Your task to perform on an android device: turn on showing notifications on the lock screen Image 0: 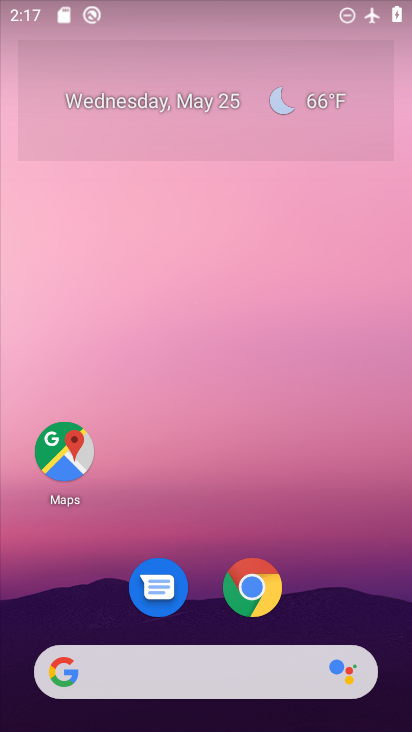
Step 0: drag from (338, 528) to (360, 131)
Your task to perform on an android device: turn on showing notifications on the lock screen Image 1: 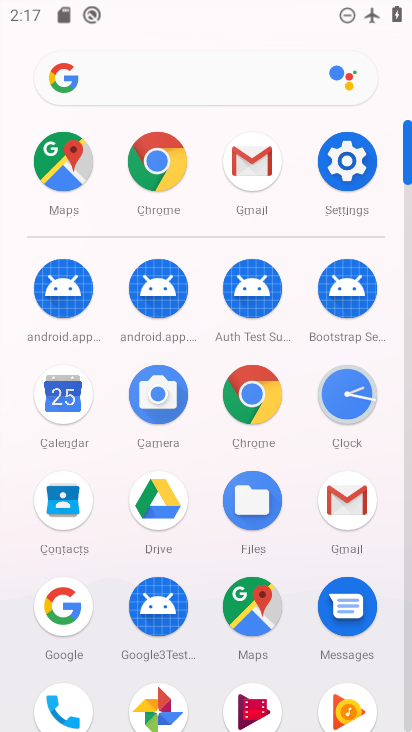
Step 1: click (359, 178)
Your task to perform on an android device: turn on showing notifications on the lock screen Image 2: 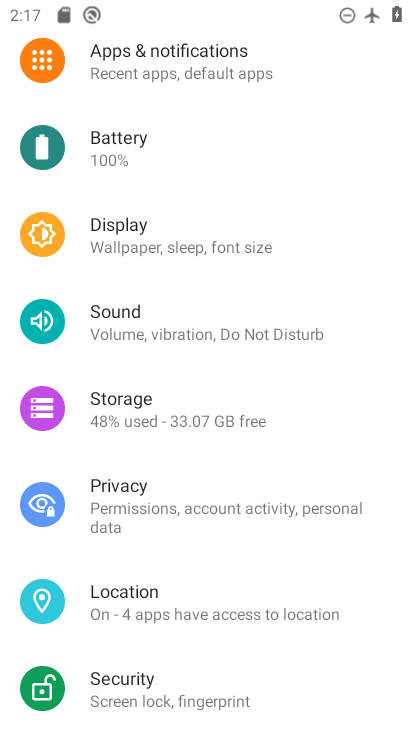
Step 2: drag from (361, 587) to (357, 454)
Your task to perform on an android device: turn on showing notifications on the lock screen Image 3: 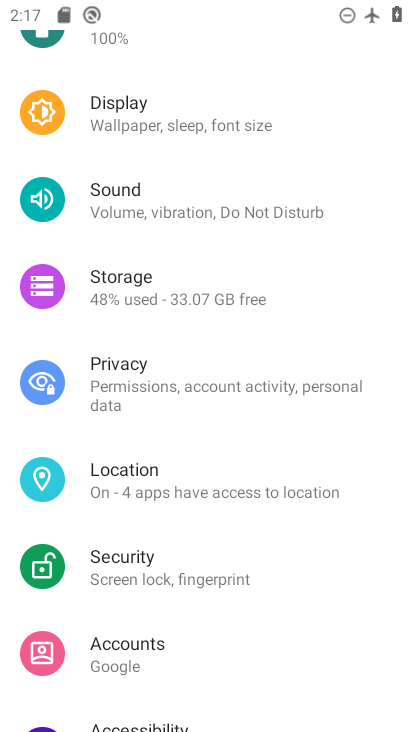
Step 3: drag from (352, 628) to (353, 432)
Your task to perform on an android device: turn on showing notifications on the lock screen Image 4: 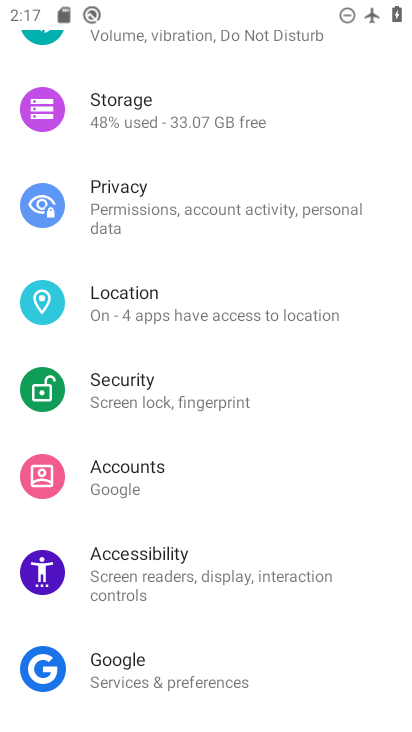
Step 4: drag from (337, 553) to (344, 400)
Your task to perform on an android device: turn on showing notifications on the lock screen Image 5: 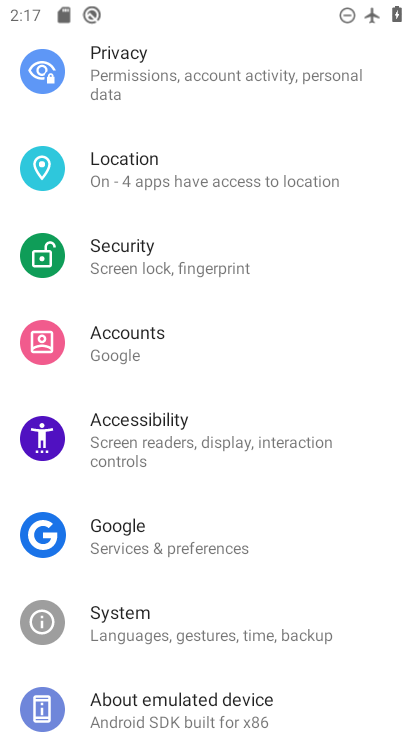
Step 5: drag from (340, 626) to (344, 483)
Your task to perform on an android device: turn on showing notifications on the lock screen Image 6: 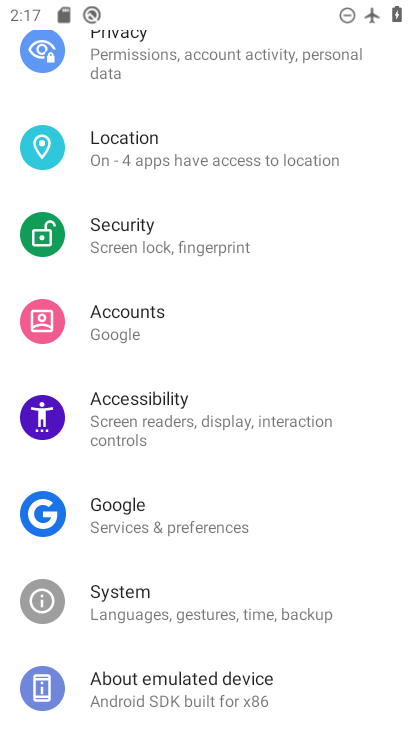
Step 6: drag from (345, 284) to (346, 430)
Your task to perform on an android device: turn on showing notifications on the lock screen Image 7: 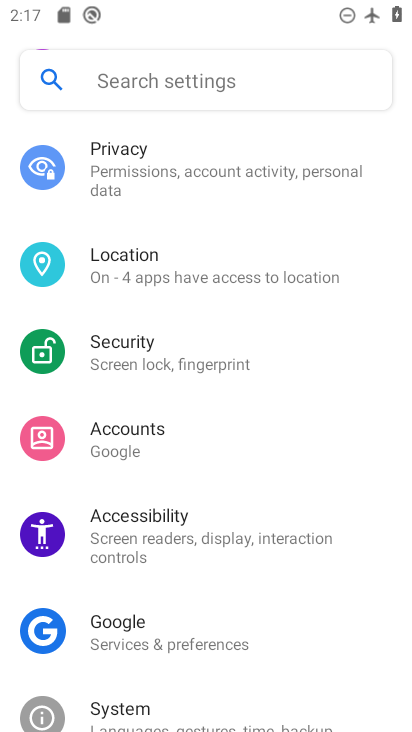
Step 7: drag from (348, 267) to (348, 383)
Your task to perform on an android device: turn on showing notifications on the lock screen Image 8: 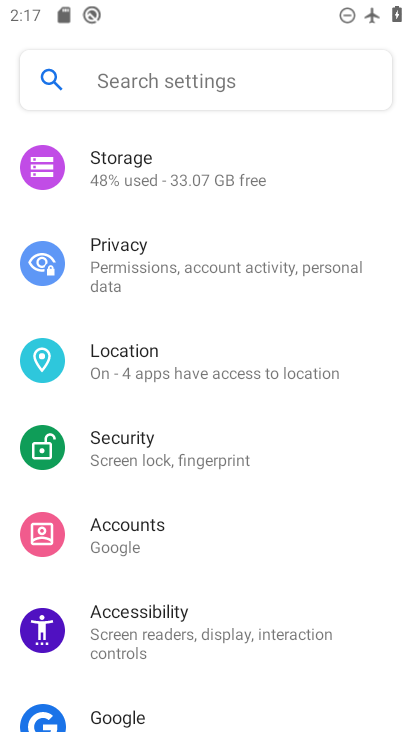
Step 8: drag from (347, 214) to (350, 349)
Your task to perform on an android device: turn on showing notifications on the lock screen Image 9: 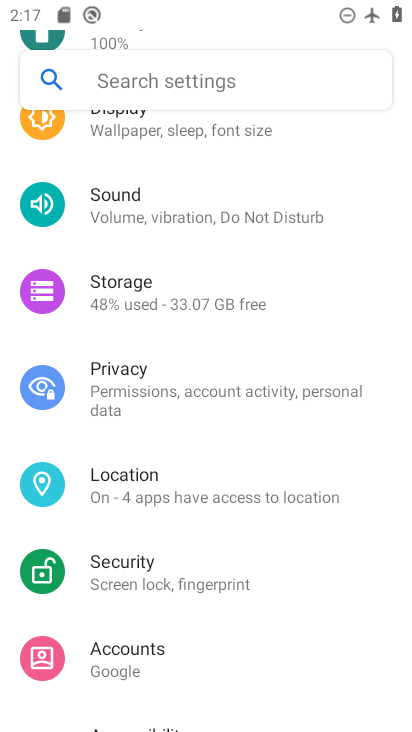
Step 9: drag from (360, 233) to (361, 311)
Your task to perform on an android device: turn on showing notifications on the lock screen Image 10: 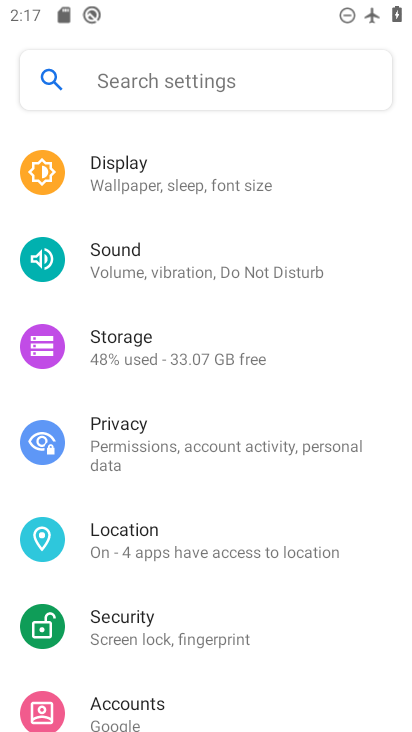
Step 10: drag from (355, 234) to (352, 339)
Your task to perform on an android device: turn on showing notifications on the lock screen Image 11: 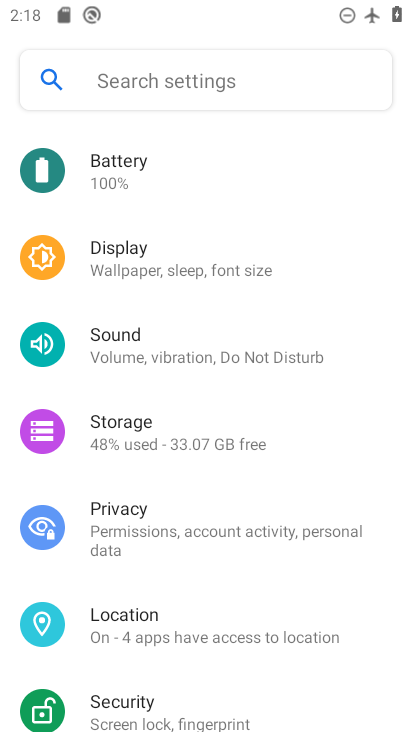
Step 11: drag from (348, 280) to (353, 430)
Your task to perform on an android device: turn on showing notifications on the lock screen Image 12: 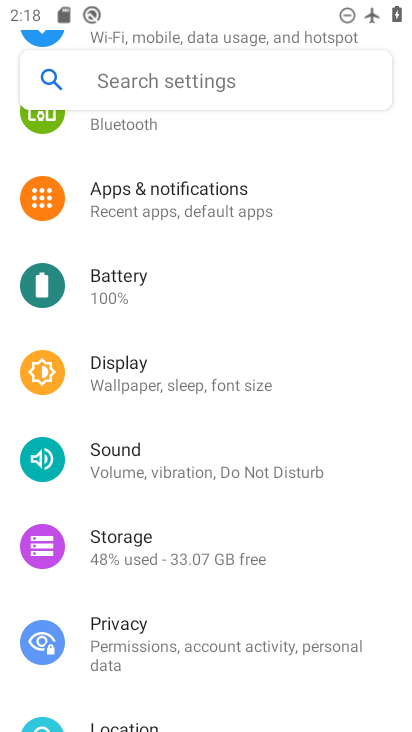
Step 12: click (257, 207)
Your task to perform on an android device: turn on showing notifications on the lock screen Image 13: 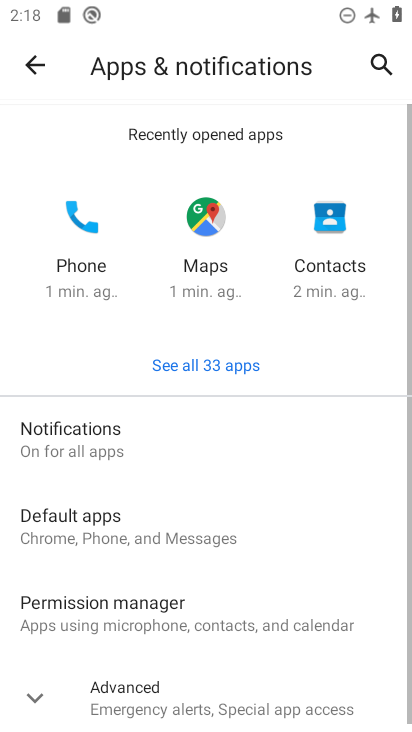
Step 13: drag from (322, 533) to (320, 392)
Your task to perform on an android device: turn on showing notifications on the lock screen Image 14: 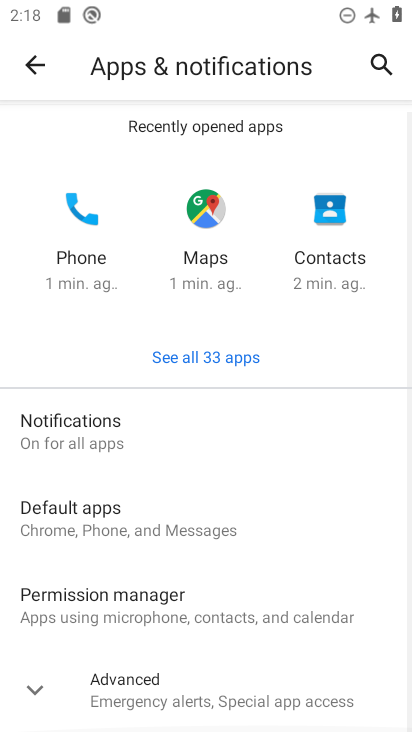
Step 14: click (100, 442)
Your task to perform on an android device: turn on showing notifications on the lock screen Image 15: 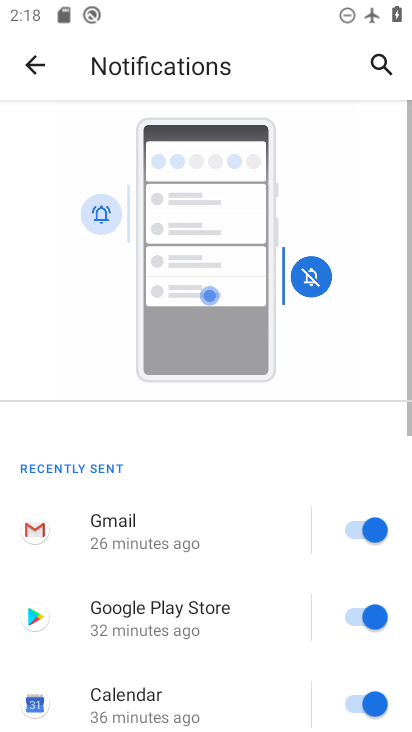
Step 15: drag from (228, 512) to (253, 375)
Your task to perform on an android device: turn on showing notifications on the lock screen Image 16: 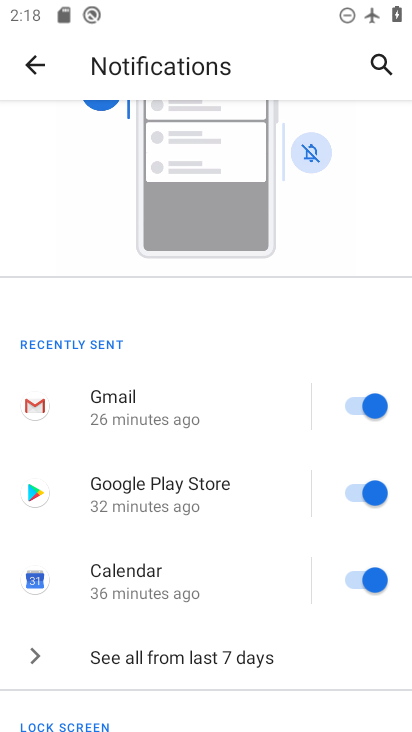
Step 16: drag from (248, 608) to (273, 434)
Your task to perform on an android device: turn on showing notifications on the lock screen Image 17: 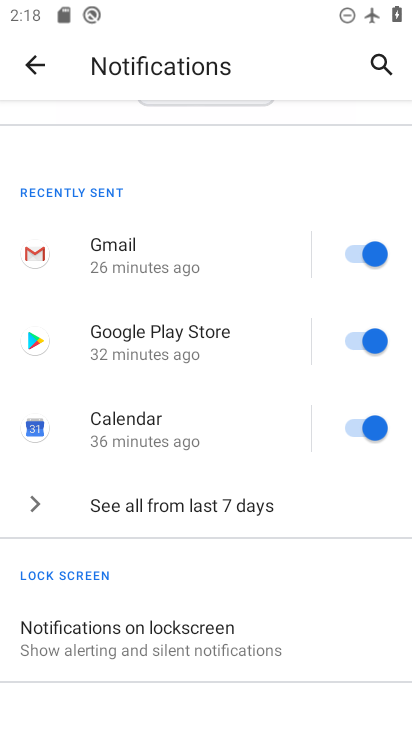
Step 17: click (254, 634)
Your task to perform on an android device: turn on showing notifications on the lock screen Image 18: 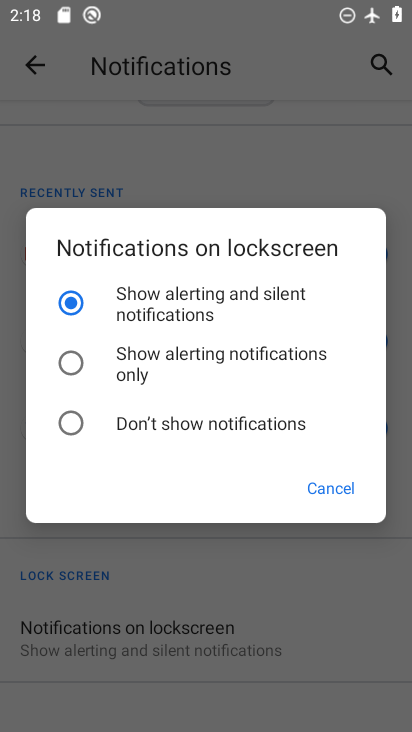
Step 18: task complete